Your task to perform on an android device: Go to eBay Image 0: 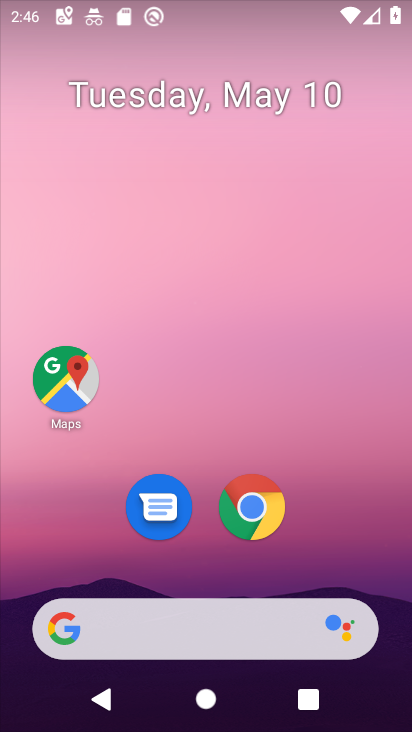
Step 0: click (258, 504)
Your task to perform on an android device: Go to eBay Image 1: 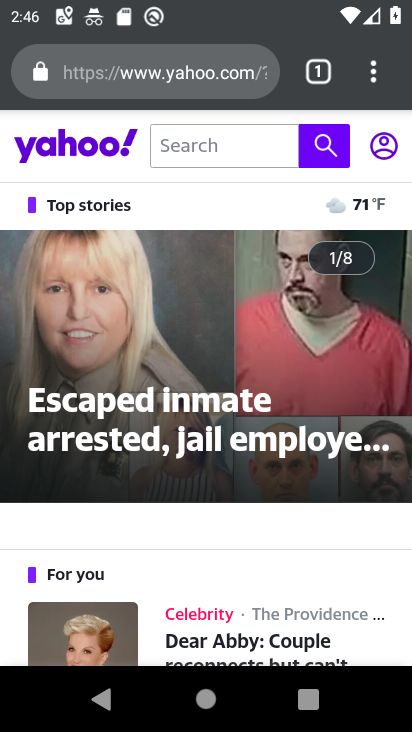
Step 1: click (125, 69)
Your task to perform on an android device: Go to eBay Image 2: 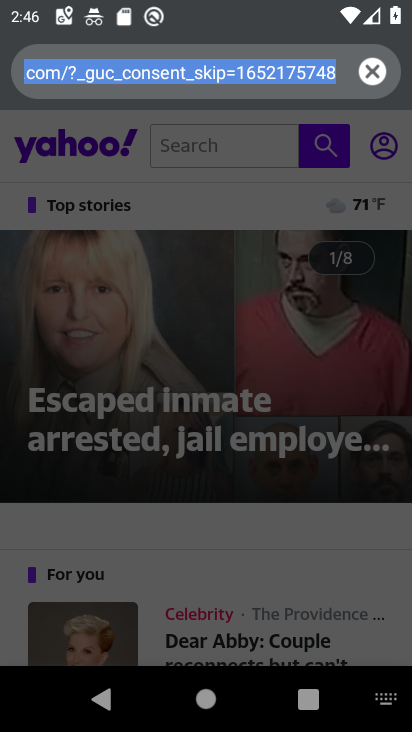
Step 2: type "eBay"
Your task to perform on an android device: Go to eBay Image 3: 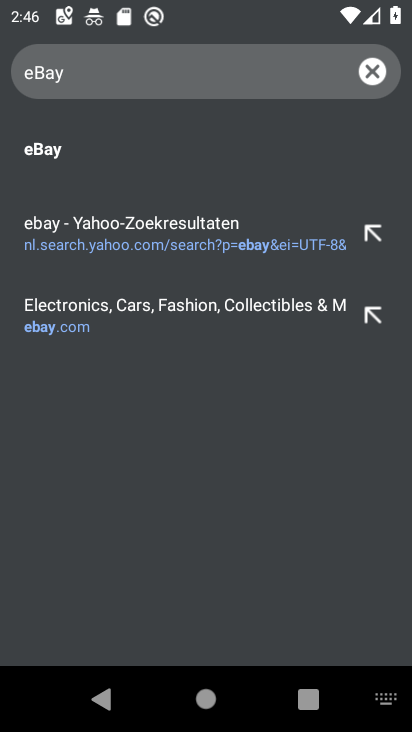
Step 3: click (86, 155)
Your task to perform on an android device: Go to eBay Image 4: 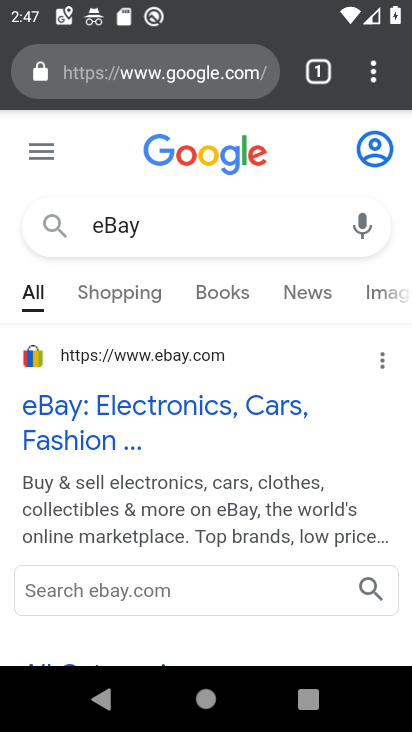
Step 4: task complete